Your task to perform on an android device: Go to location settings Image 0: 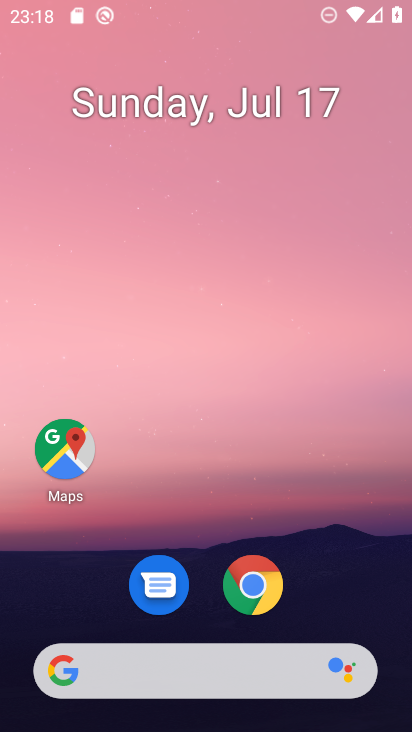
Step 0: press home button
Your task to perform on an android device: Go to location settings Image 1: 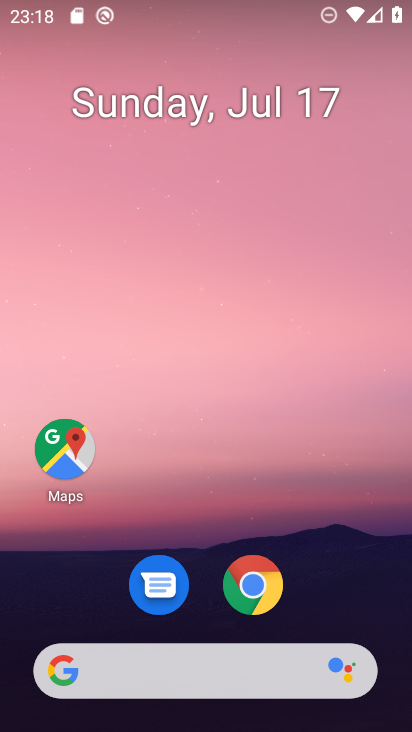
Step 1: drag from (184, 684) to (281, 197)
Your task to perform on an android device: Go to location settings Image 2: 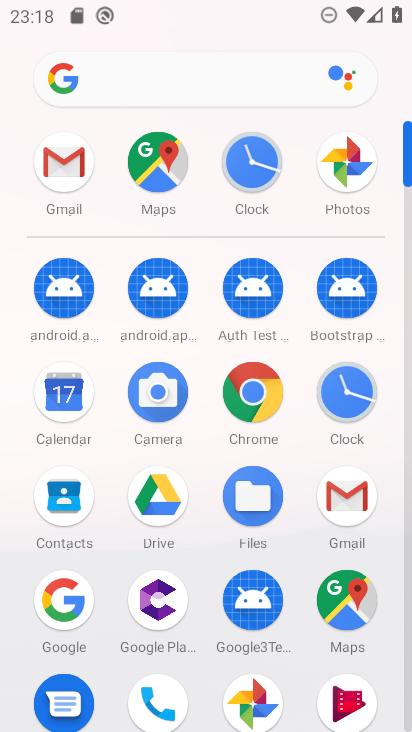
Step 2: drag from (216, 598) to (317, 206)
Your task to perform on an android device: Go to location settings Image 3: 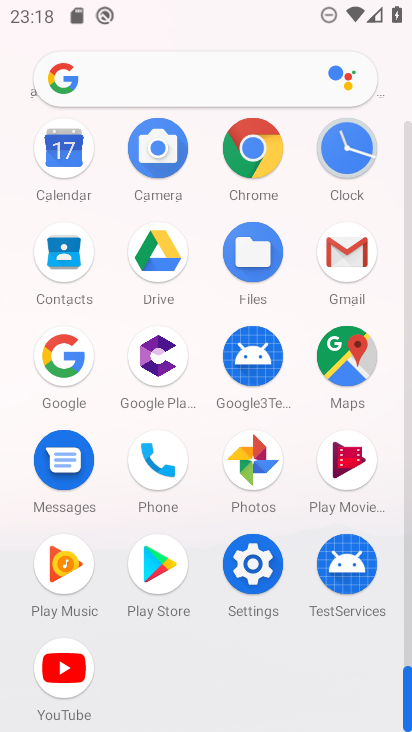
Step 3: click (256, 571)
Your task to perform on an android device: Go to location settings Image 4: 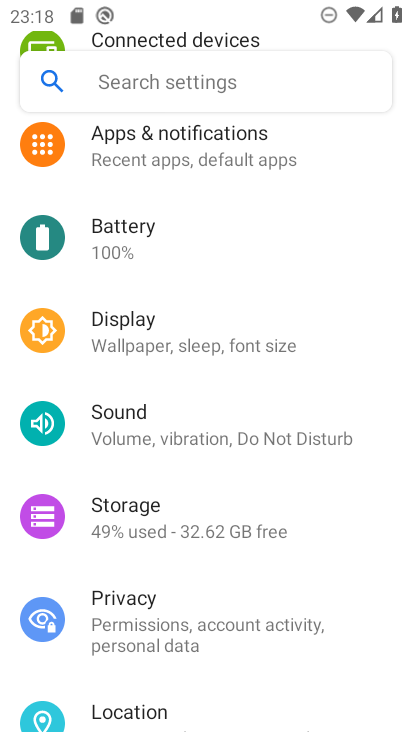
Step 4: click (146, 708)
Your task to perform on an android device: Go to location settings Image 5: 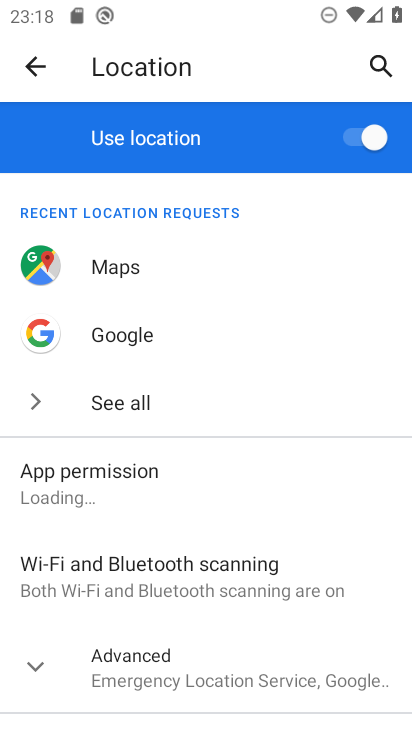
Step 5: task complete